Your task to perform on an android device: set the stopwatch Image 0: 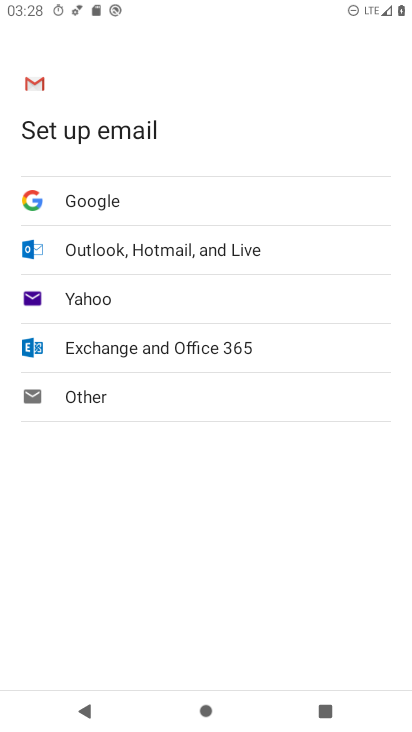
Step 0: press home button
Your task to perform on an android device: set the stopwatch Image 1: 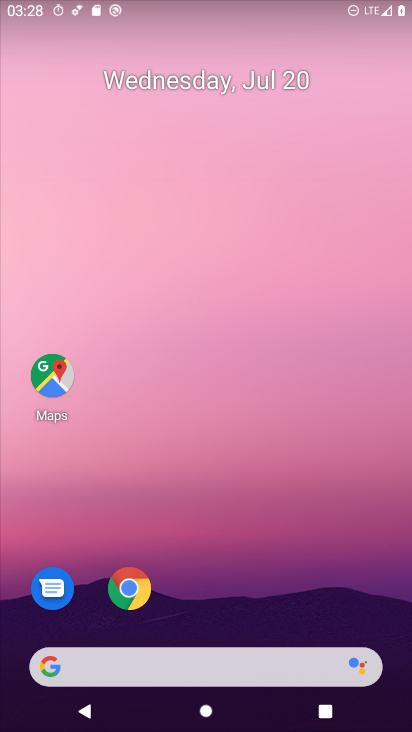
Step 1: drag from (180, 598) to (355, 1)
Your task to perform on an android device: set the stopwatch Image 2: 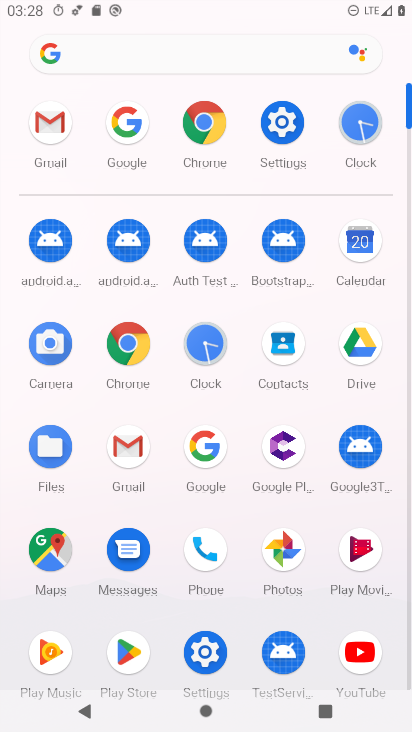
Step 2: click (220, 359)
Your task to perform on an android device: set the stopwatch Image 3: 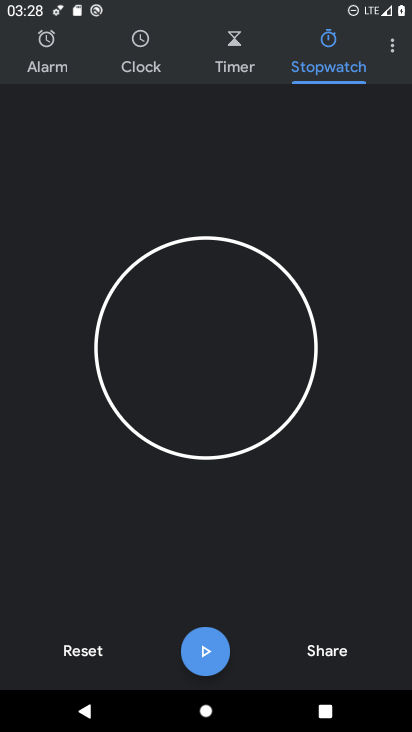
Step 3: click (201, 669)
Your task to perform on an android device: set the stopwatch Image 4: 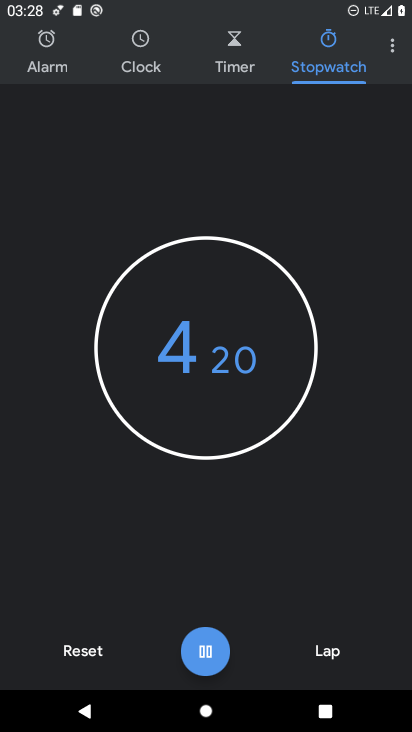
Step 4: click (201, 669)
Your task to perform on an android device: set the stopwatch Image 5: 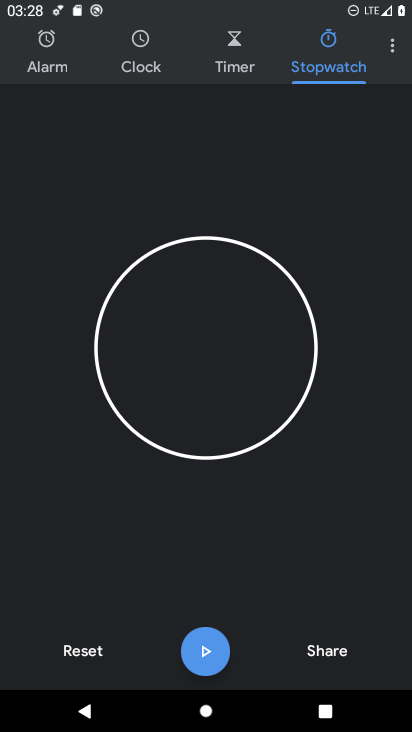
Step 5: task complete